Your task to perform on an android device: Show me popular videos on Youtube Image 0: 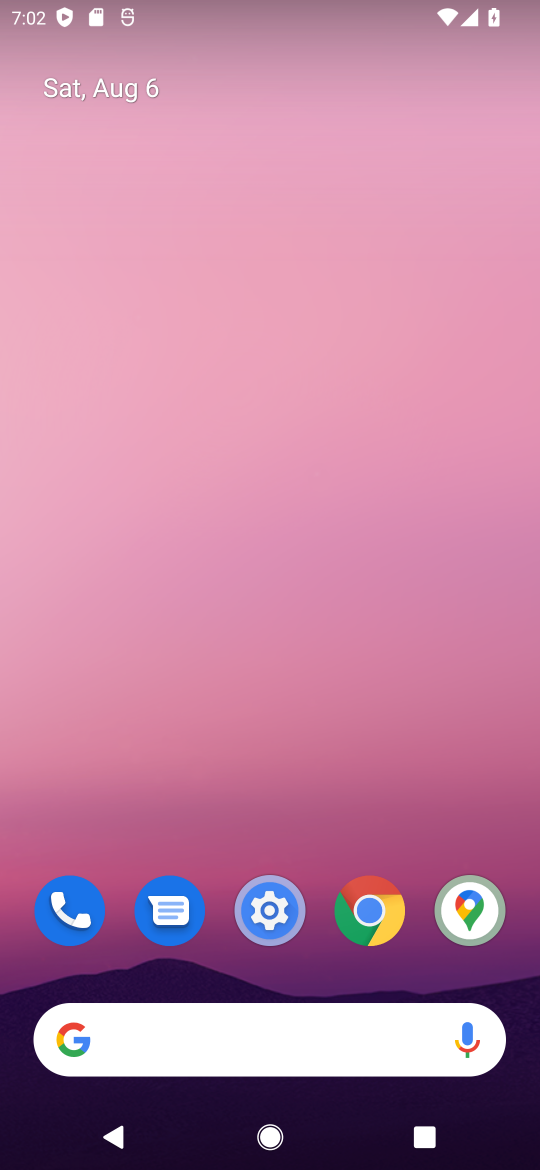
Step 0: drag from (504, 1124) to (442, 229)
Your task to perform on an android device: Show me popular videos on Youtube Image 1: 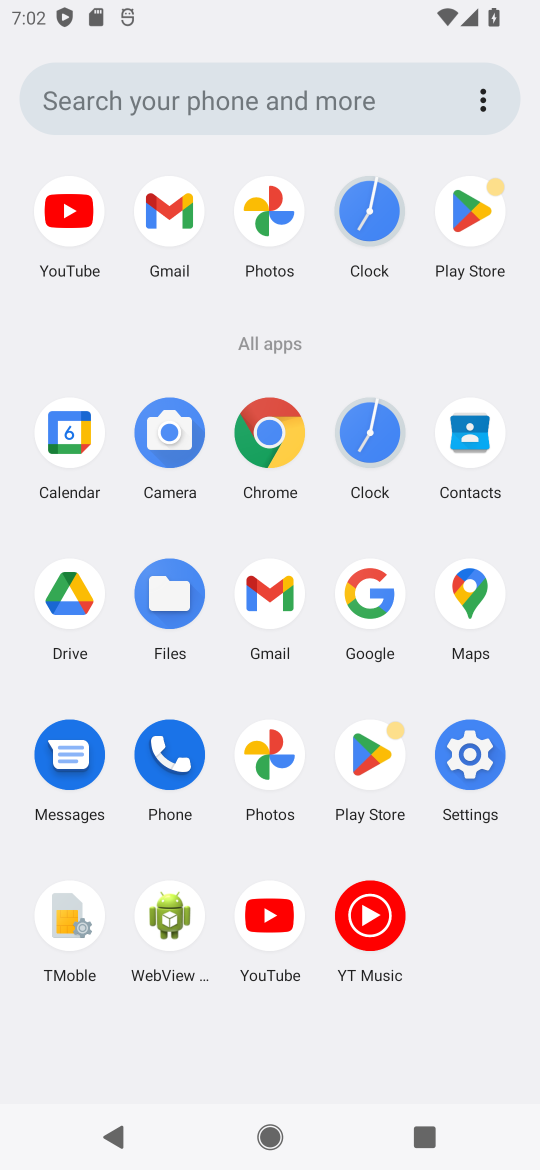
Step 1: click (252, 926)
Your task to perform on an android device: Show me popular videos on Youtube Image 2: 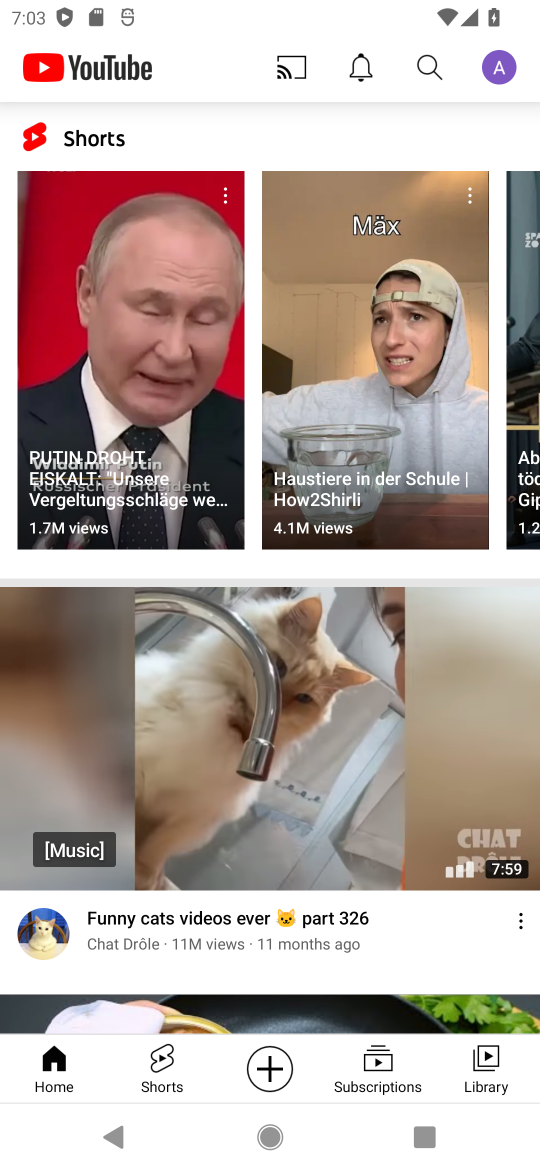
Step 2: click (415, 59)
Your task to perform on an android device: Show me popular videos on Youtube Image 3: 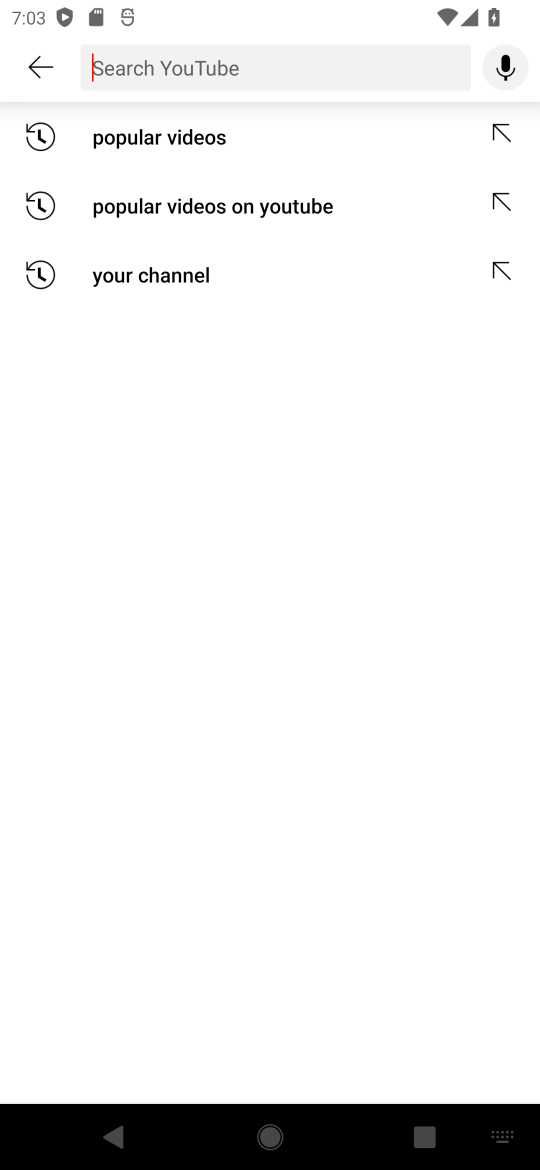
Step 3: type "Show me popular videos on Youtube"
Your task to perform on an android device: Show me popular videos on Youtube Image 4: 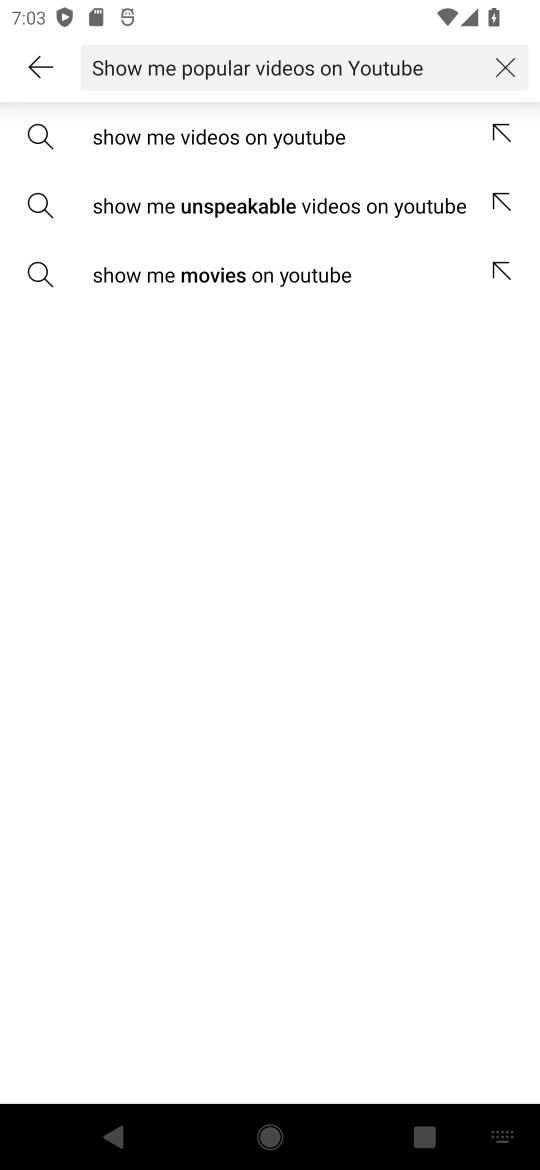
Step 4: click (279, 128)
Your task to perform on an android device: Show me popular videos on Youtube Image 5: 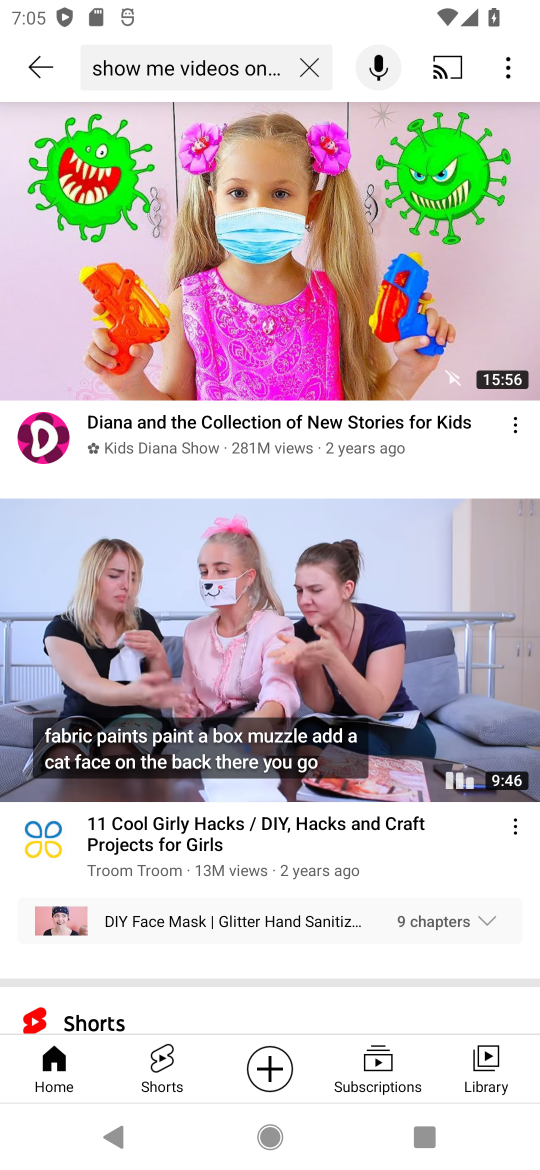
Step 5: task complete